Your task to perform on an android device: Show me productivity apps on the Play Store Image 0: 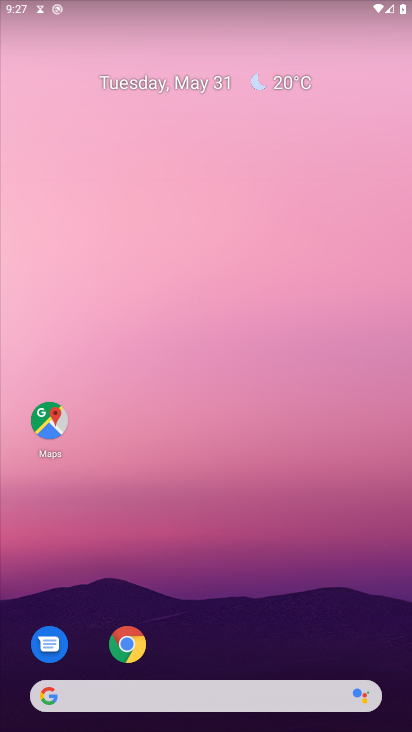
Step 0: press home button
Your task to perform on an android device: Show me productivity apps on the Play Store Image 1: 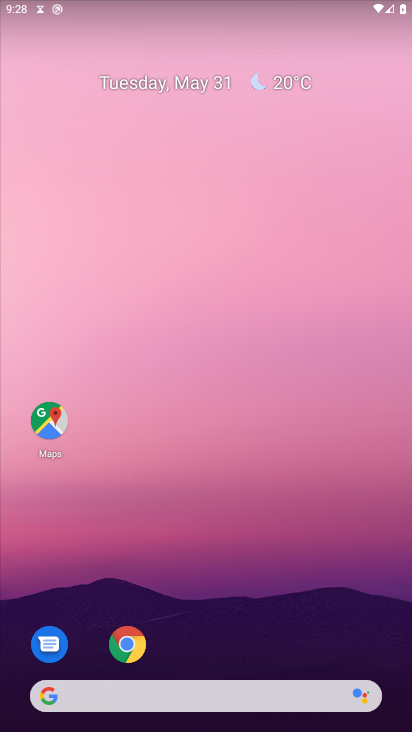
Step 1: drag from (216, 657) to (205, 150)
Your task to perform on an android device: Show me productivity apps on the Play Store Image 2: 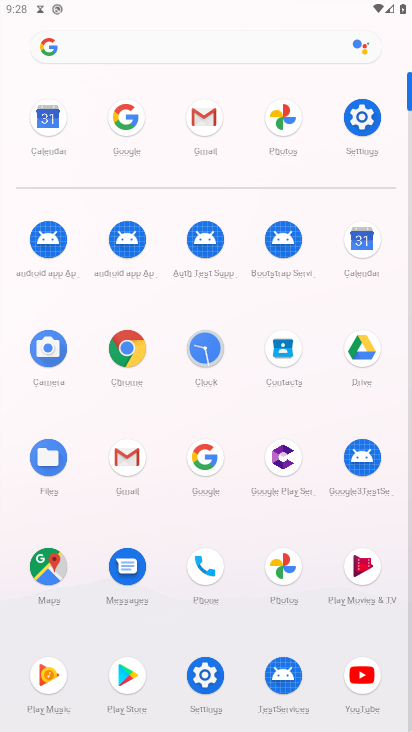
Step 2: click (123, 672)
Your task to perform on an android device: Show me productivity apps on the Play Store Image 3: 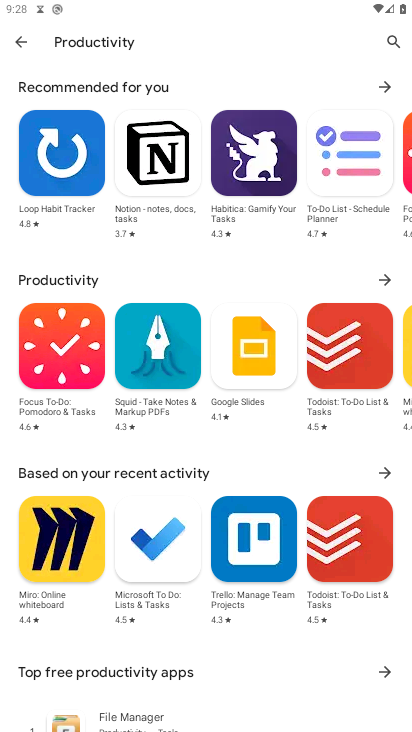
Step 3: task complete